Your task to perform on an android device: turn off location history Image 0: 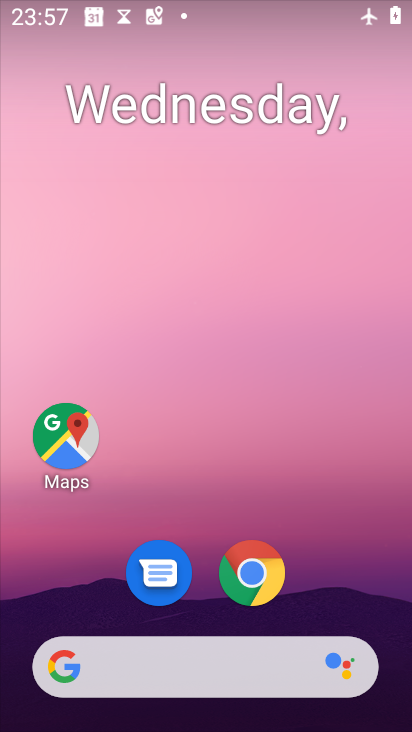
Step 0: drag from (342, 581) to (367, 191)
Your task to perform on an android device: turn off location history Image 1: 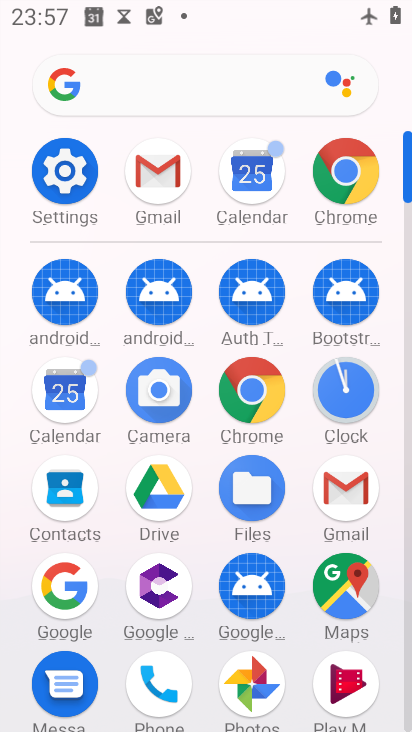
Step 1: click (74, 164)
Your task to perform on an android device: turn off location history Image 2: 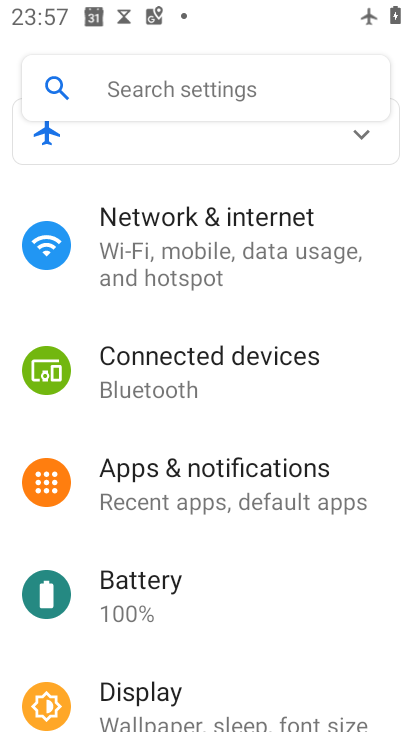
Step 2: drag from (232, 588) to (273, 277)
Your task to perform on an android device: turn off location history Image 3: 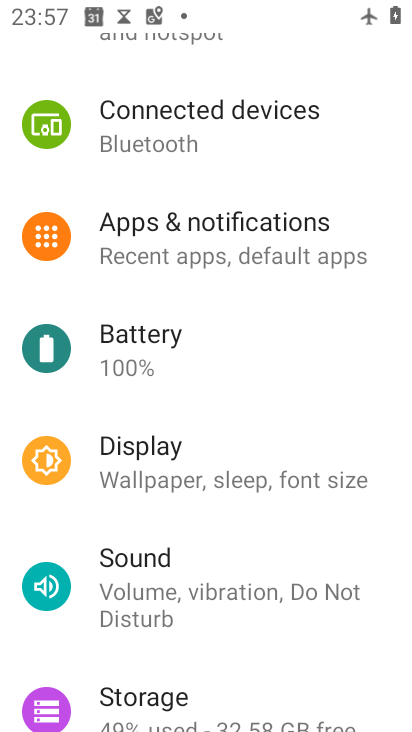
Step 3: drag from (206, 607) to (253, 226)
Your task to perform on an android device: turn off location history Image 4: 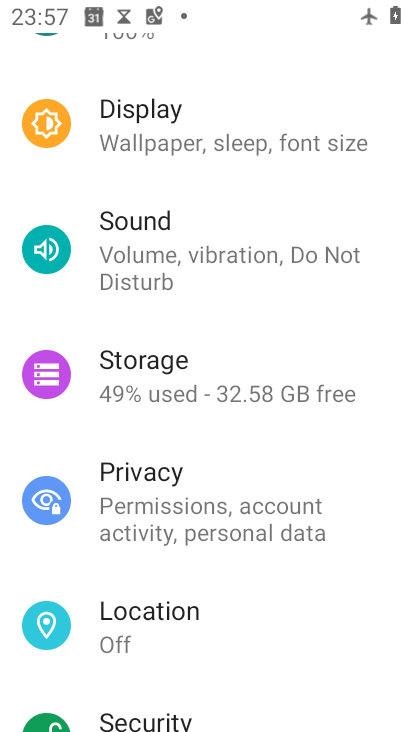
Step 4: click (175, 635)
Your task to perform on an android device: turn off location history Image 5: 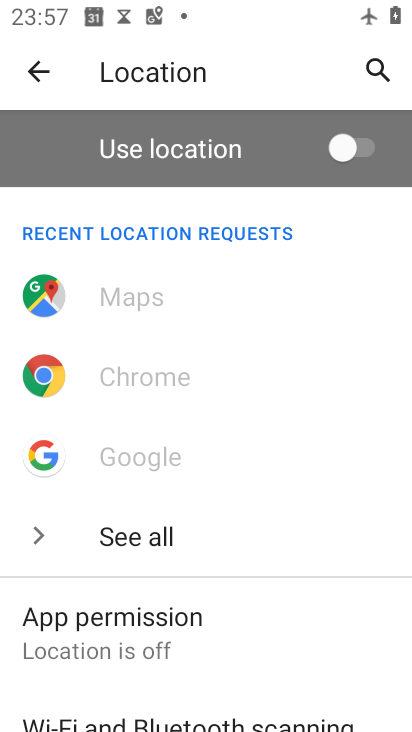
Step 5: drag from (229, 533) to (243, 332)
Your task to perform on an android device: turn off location history Image 6: 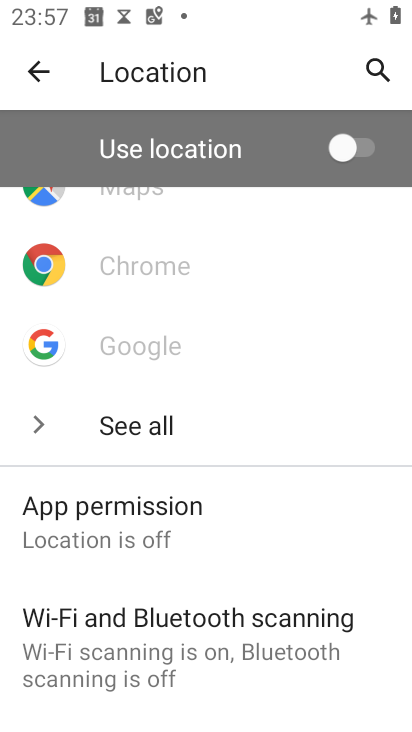
Step 6: drag from (227, 613) to (264, 369)
Your task to perform on an android device: turn off location history Image 7: 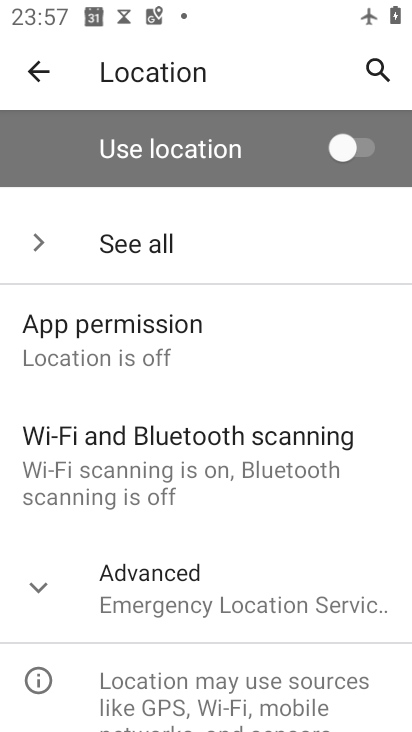
Step 7: click (164, 588)
Your task to perform on an android device: turn off location history Image 8: 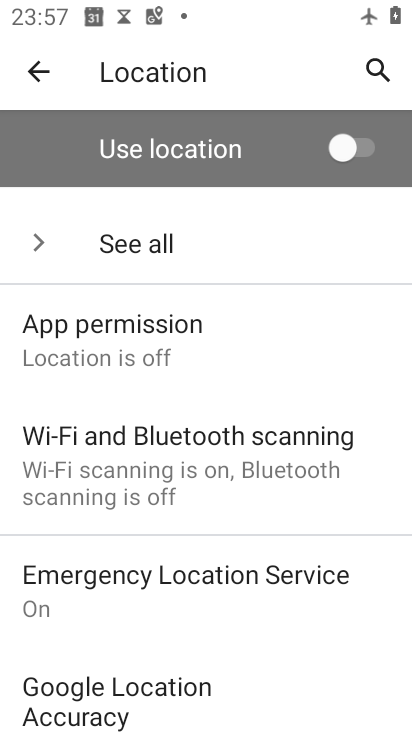
Step 8: drag from (224, 585) to (239, 347)
Your task to perform on an android device: turn off location history Image 9: 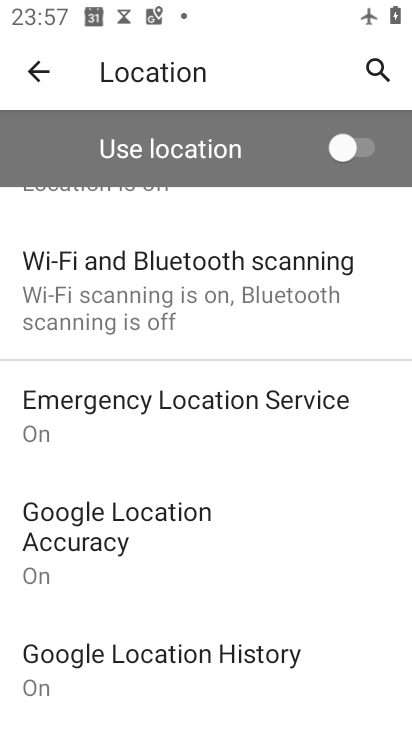
Step 9: click (198, 656)
Your task to perform on an android device: turn off location history Image 10: 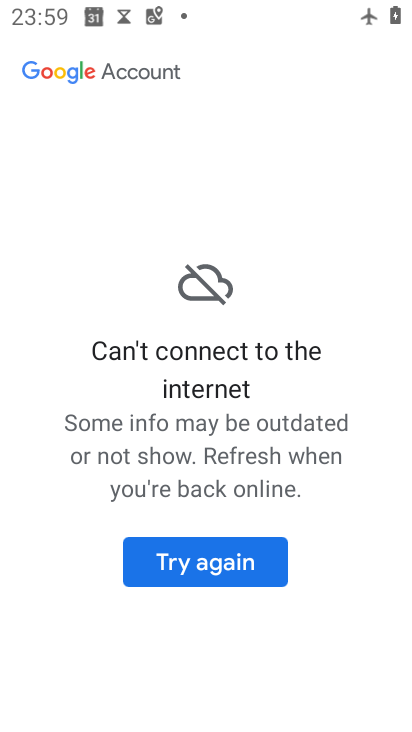
Step 10: task complete